Your task to perform on an android device: Open the web browser Image 0: 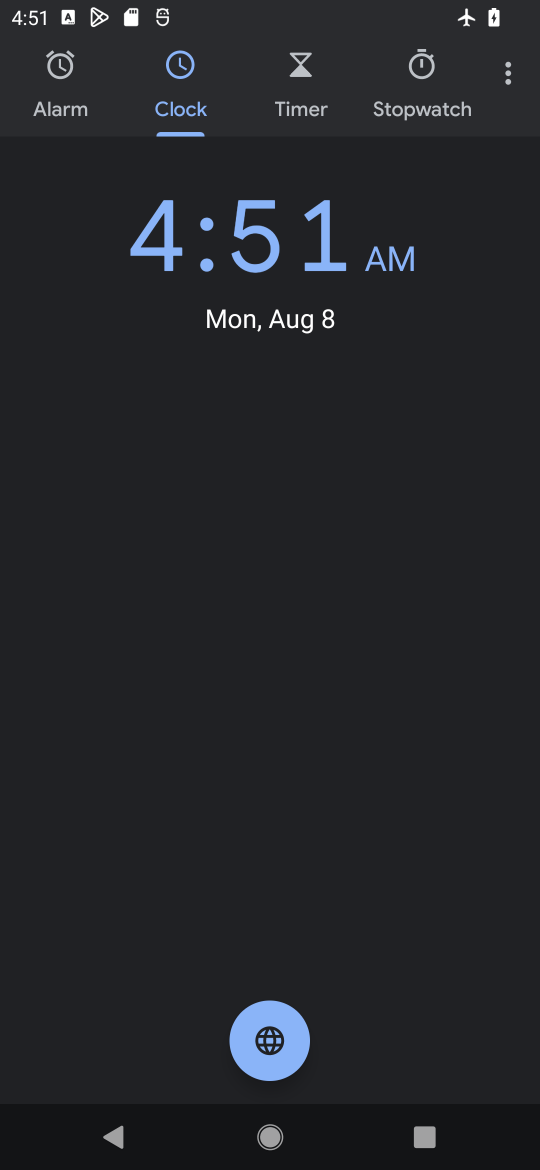
Step 0: press home button
Your task to perform on an android device: Open the web browser Image 1: 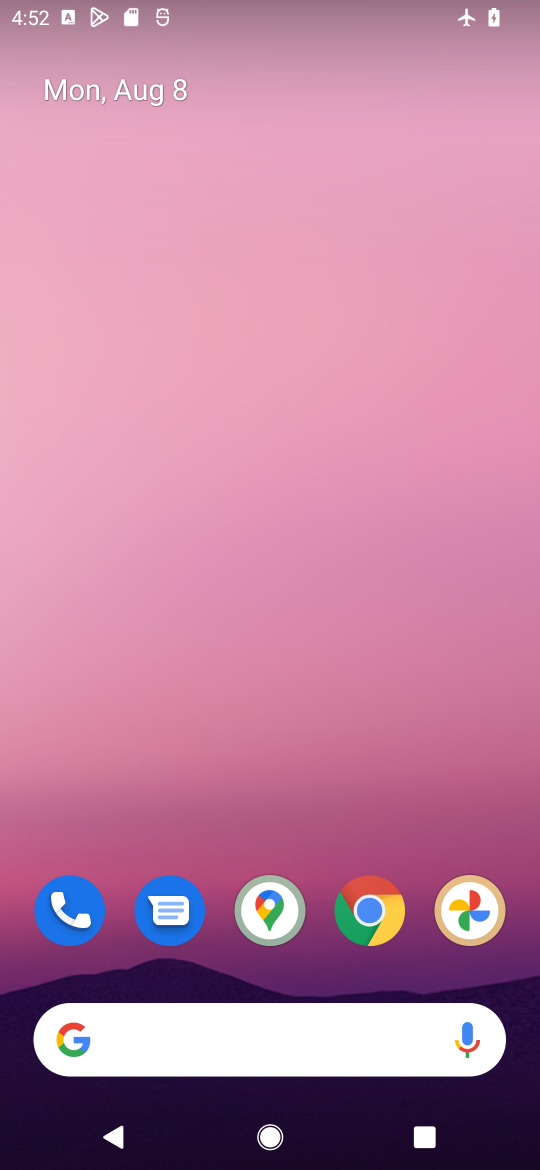
Step 1: click (377, 934)
Your task to perform on an android device: Open the web browser Image 2: 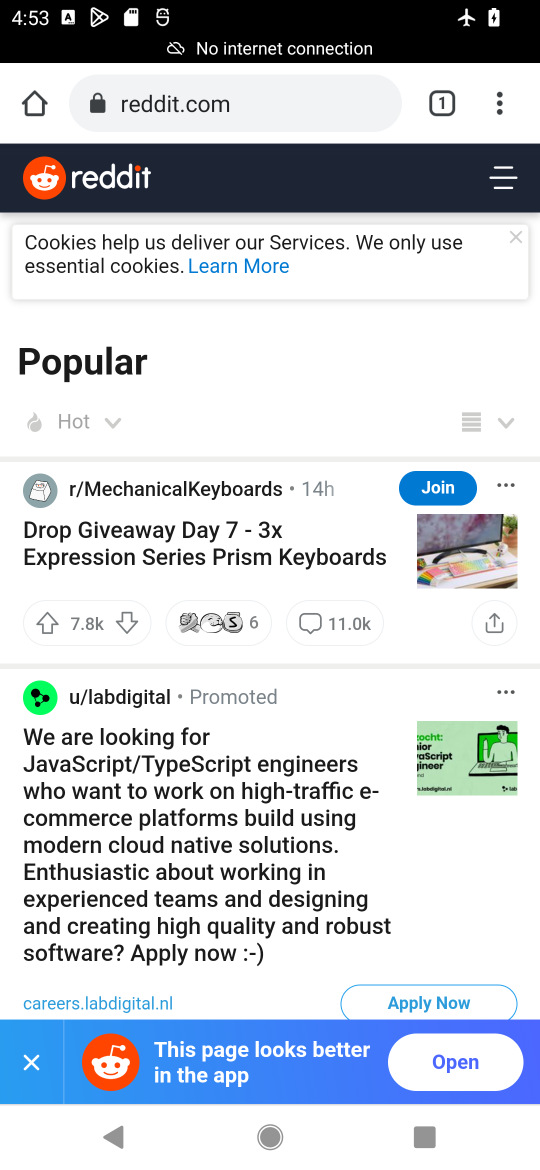
Step 2: drag from (392, 16) to (123, 1023)
Your task to perform on an android device: Open the web browser Image 3: 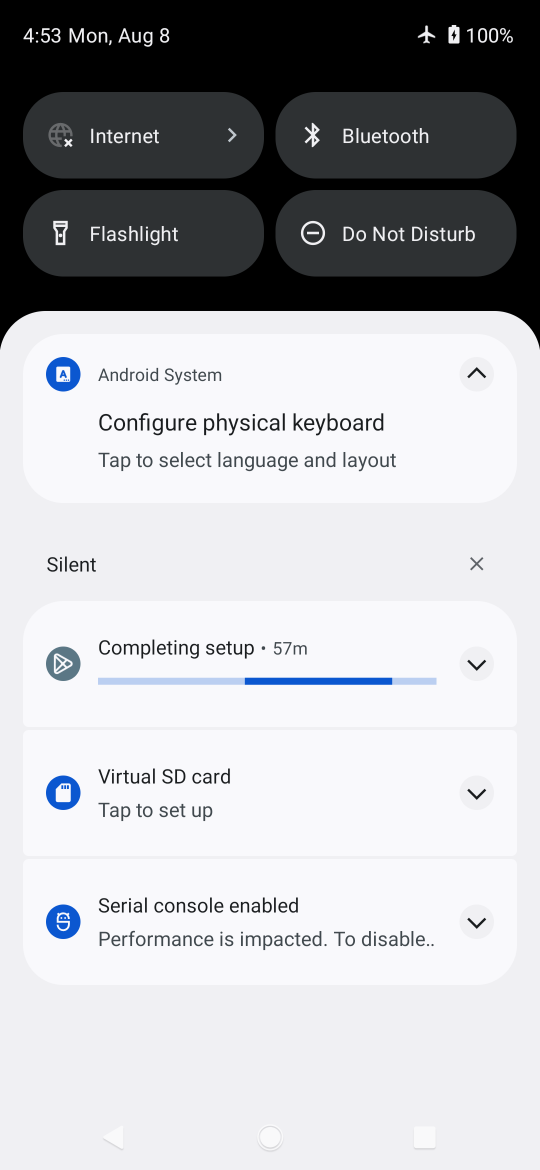
Step 3: drag from (239, 306) to (143, 1110)
Your task to perform on an android device: Open the web browser Image 4: 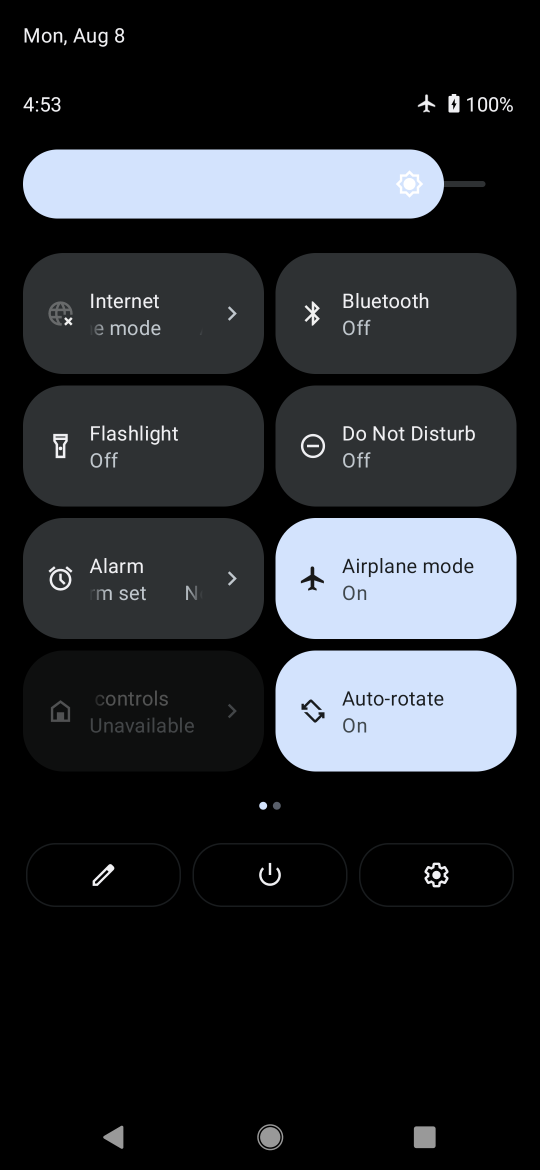
Step 4: click (363, 590)
Your task to perform on an android device: Open the web browser Image 5: 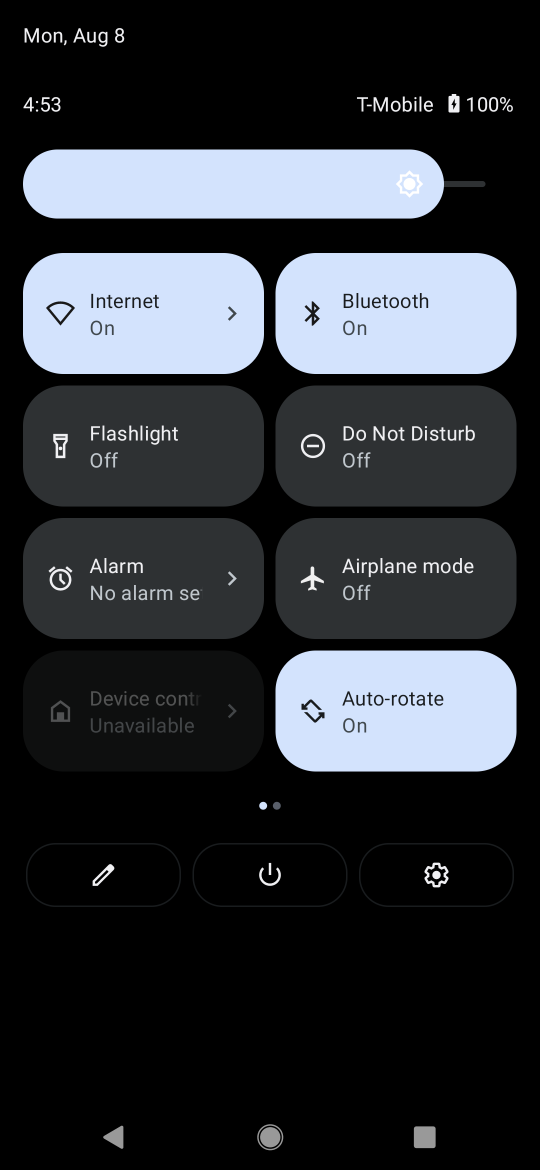
Step 5: click (346, 1044)
Your task to perform on an android device: Open the web browser Image 6: 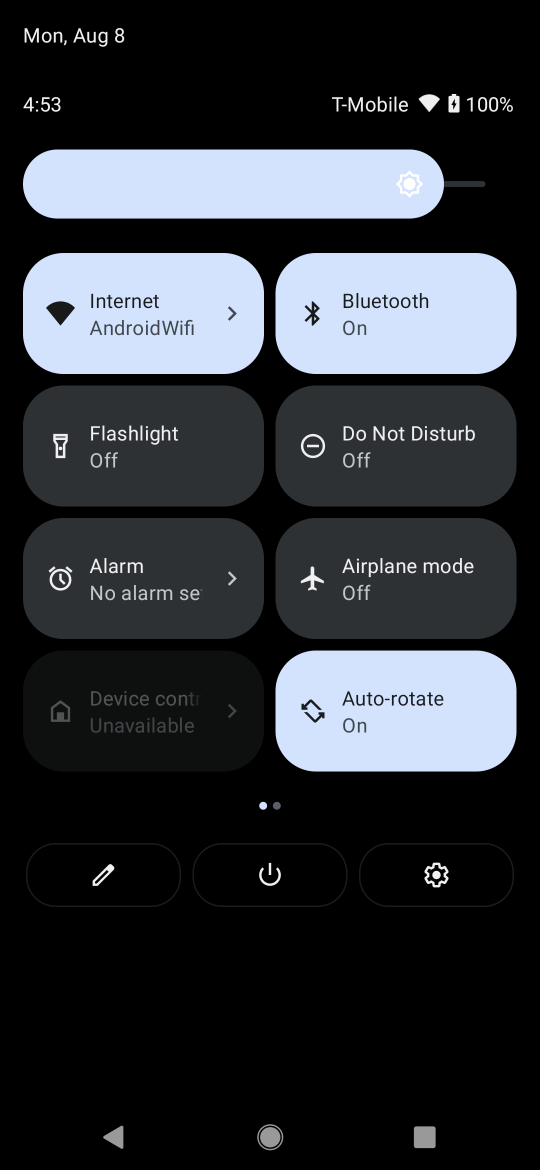
Step 6: click (268, 1136)
Your task to perform on an android device: Open the web browser Image 7: 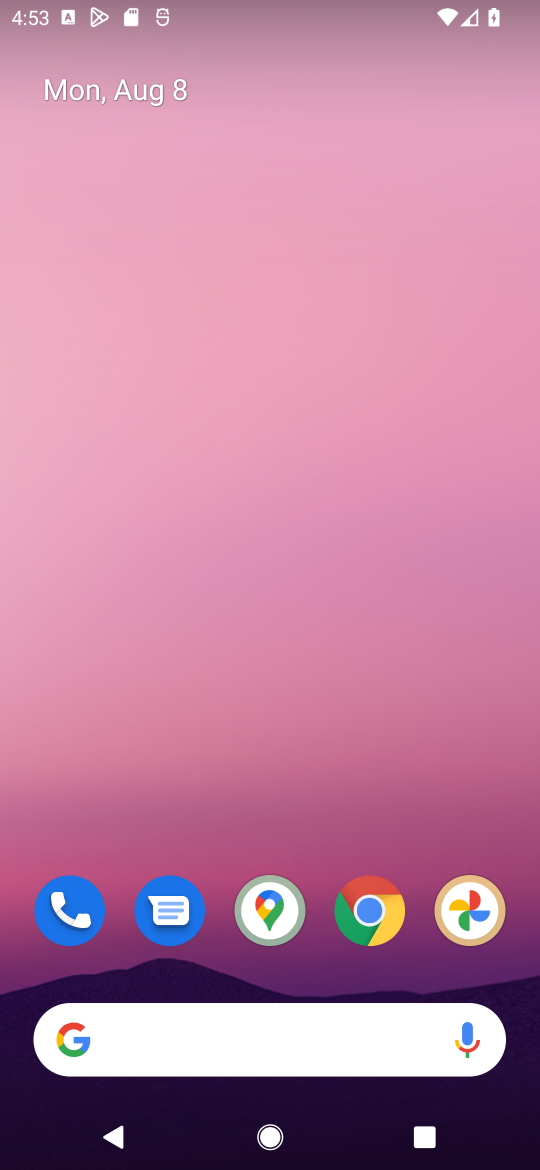
Step 7: click (392, 917)
Your task to perform on an android device: Open the web browser Image 8: 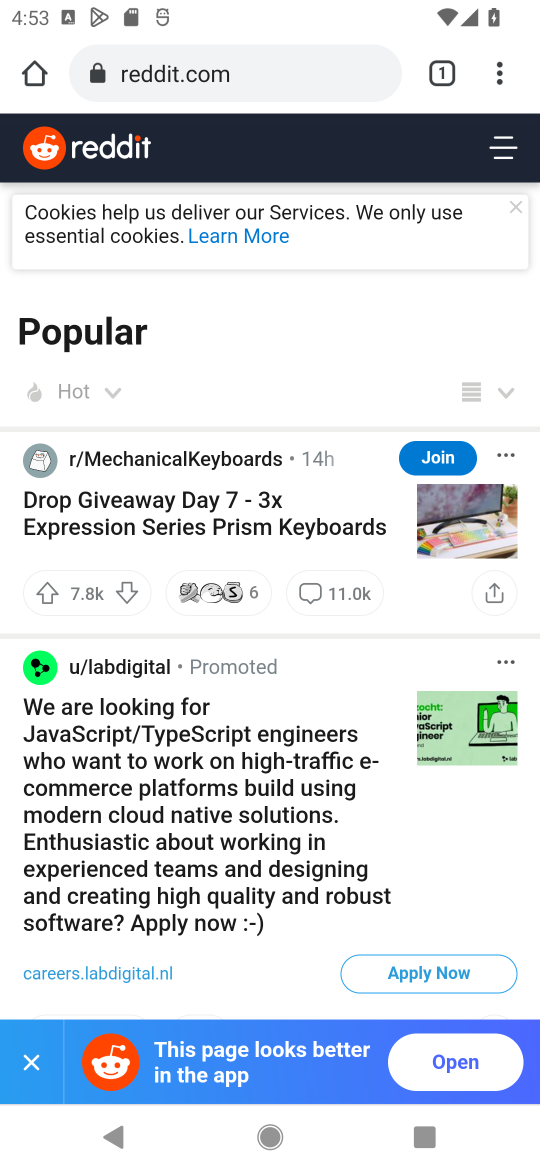
Step 8: task complete